Your task to perform on an android device: star an email in the gmail app Image 0: 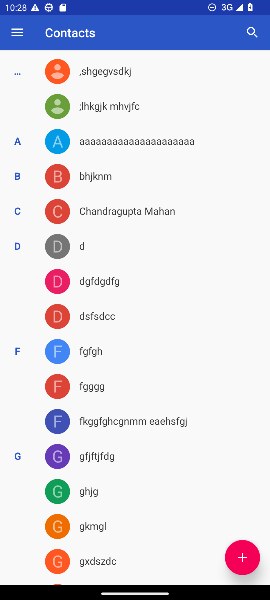
Step 0: press home button
Your task to perform on an android device: star an email in the gmail app Image 1: 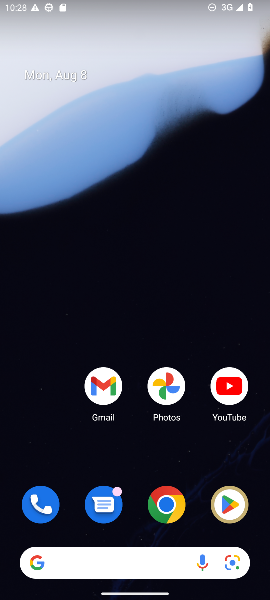
Step 1: click (106, 398)
Your task to perform on an android device: star an email in the gmail app Image 2: 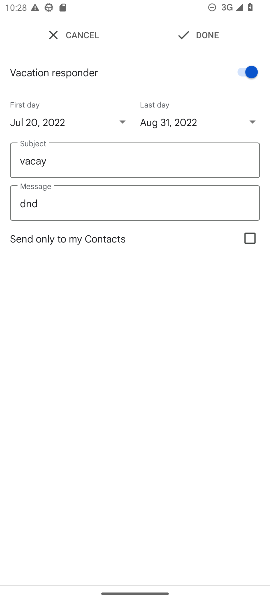
Step 2: click (51, 33)
Your task to perform on an android device: star an email in the gmail app Image 3: 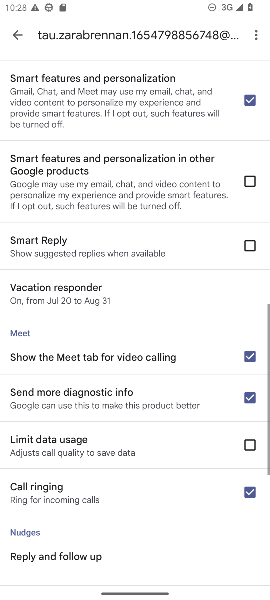
Step 3: click (18, 33)
Your task to perform on an android device: star an email in the gmail app Image 4: 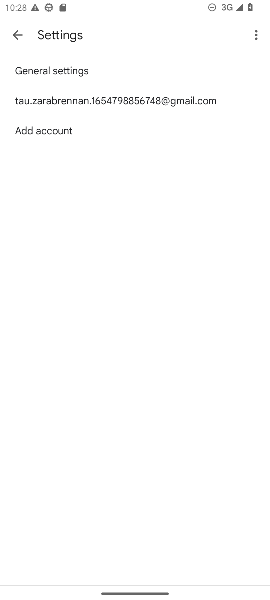
Step 4: click (20, 37)
Your task to perform on an android device: star an email in the gmail app Image 5: 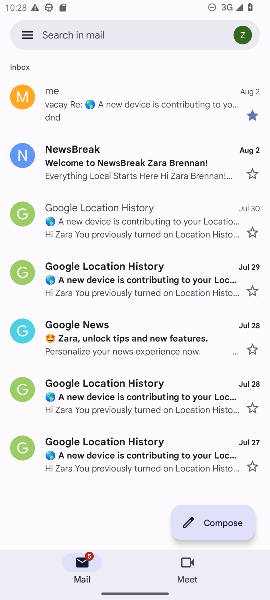
Step 5: click (250, 174)
Your task to perform on an android device: star an email in the gmail app Image 6: 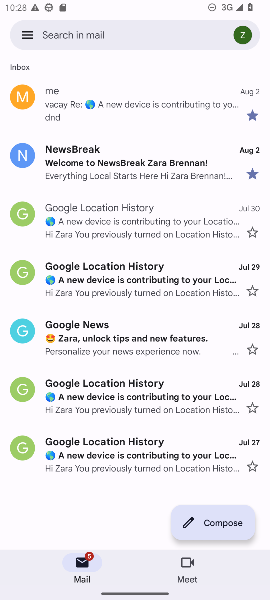
Step 6: task complete